Your task to perform on an android device: empty trash in google photos Image 0: 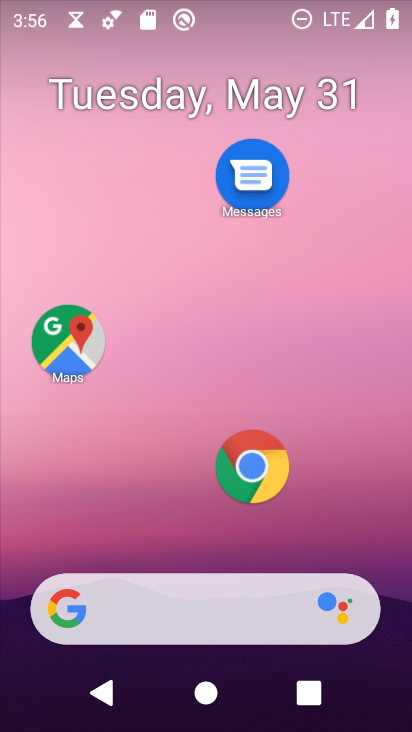
Step 0: drag from (125, 530) to (227, 58)
Your task to perform on an android device: empty trash in google photos Image 1: 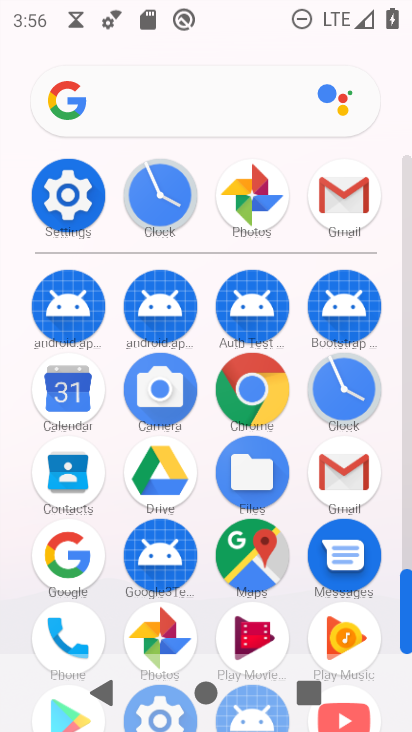
Step 1: click (152, 640)
Your task to perform on an android device: empty trash in google photos Image 2: 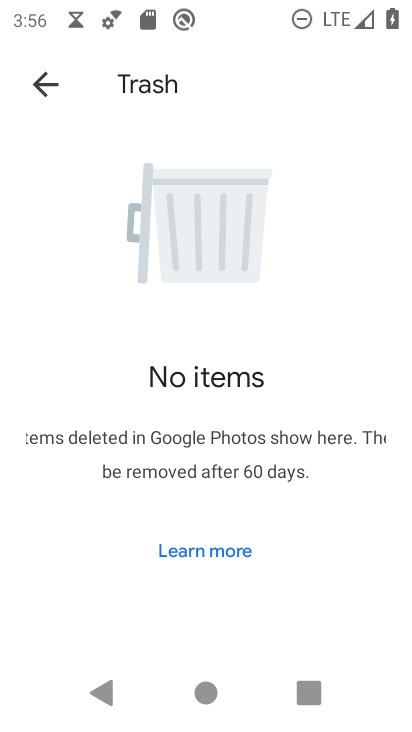
Step 2: task complete